Your task to perform on an android device: Go to battery settings Image 0: 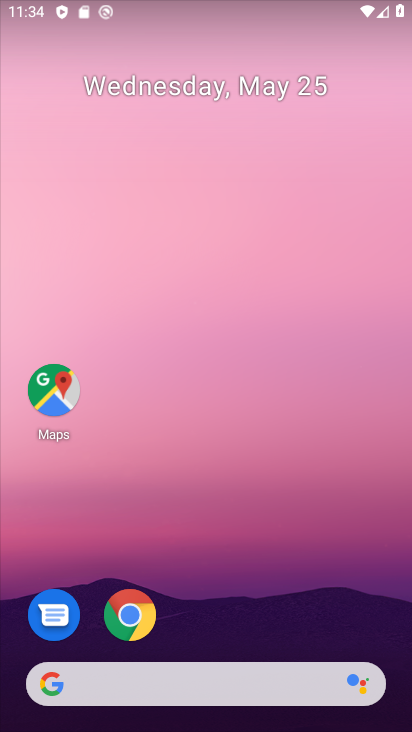
Step 0: drag from (344, 628) to (301, 16)
Your task to perform on an android device: Go to battery settings Image 1: 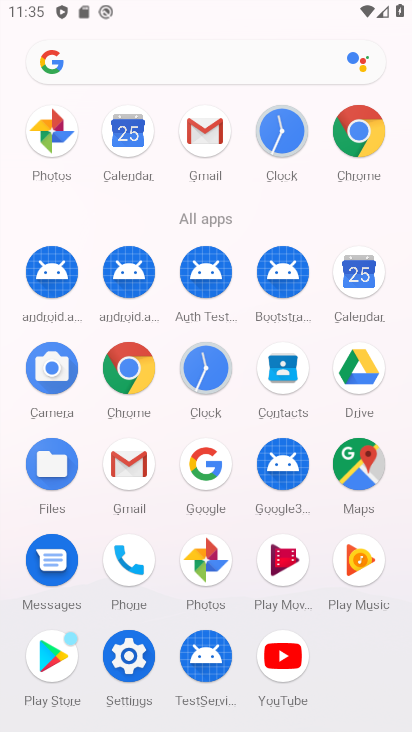
Step 1: click (135, 673)
Your task to perform on an android device: Go to battery settings Image 2: 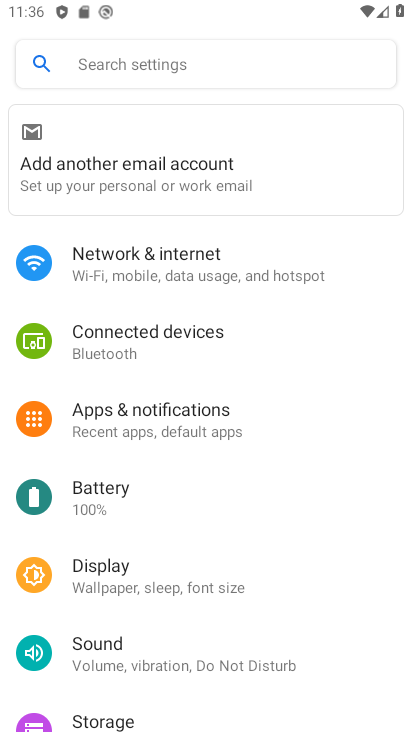
Step 2: click (126, 510)
Your task to perform on an android device: Go to battery settings Image 3: 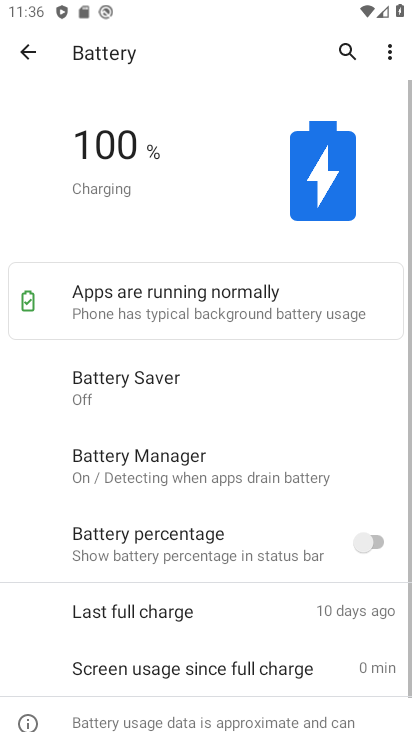
Step 3: task complete